Your task to perform on an android device: Show me the alarms in the clock app Image 0: 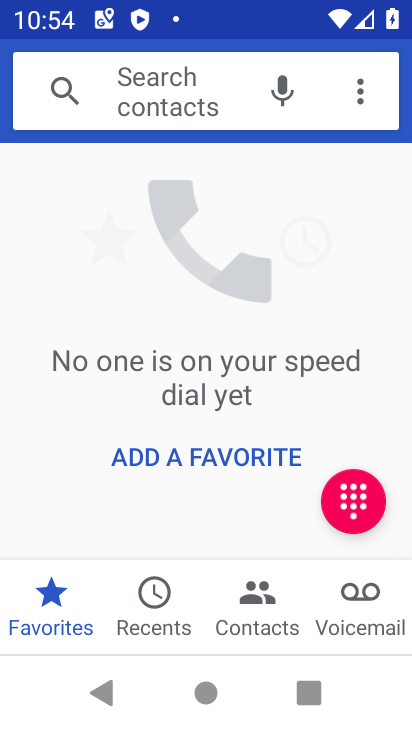
Step 0: press home button
Your task to perform on an android device: Show me the alarms in the clock app Image 1: 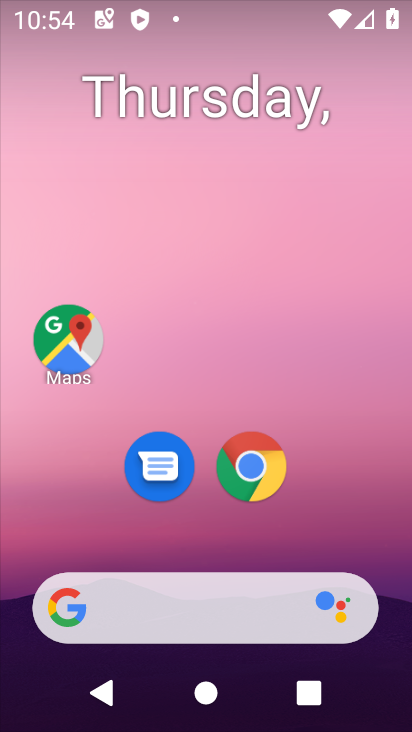
Step 1: drag from (226, 540) to (139, 28)
Your task to perform on an android device: Show me the alarms in the clock app Image 2: 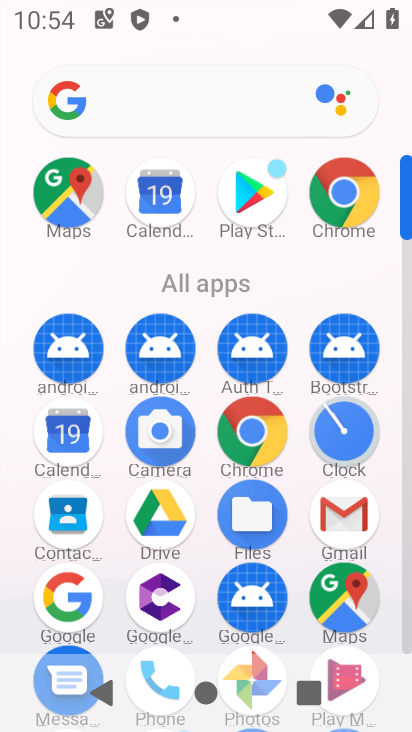
Step 2: click (346, 430)
Your task to perform on an android device: Show me the alarms in the clock app Image 3: 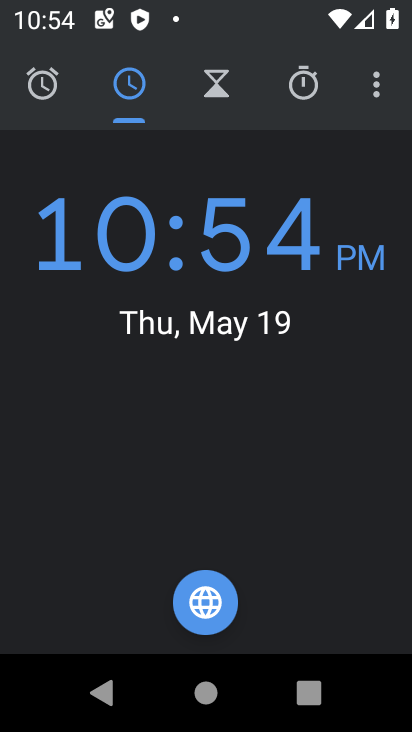
Step 3: click (56, 68)
Your task to perform on an android device: Show me the alarms in the clock app Image 4: 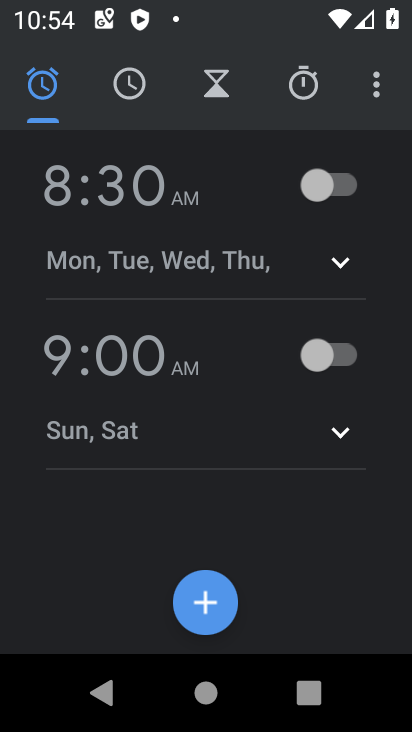
Step 4: task complete